Your task to perform on an android device: check out phone information Image 0: 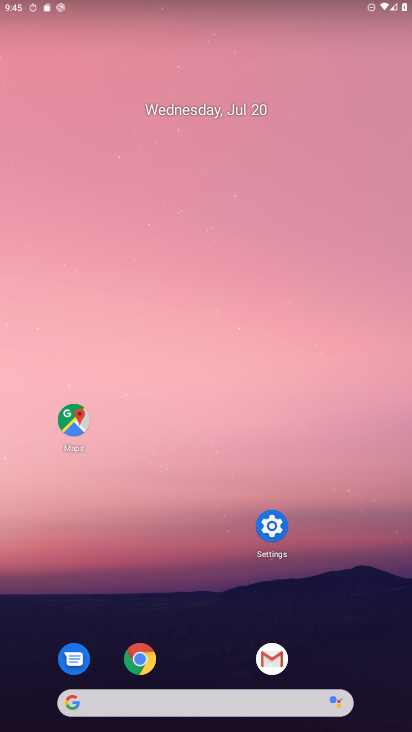
Step 0: click (289, 527)
Your task to perform on an android device: check out phone information Image 1: 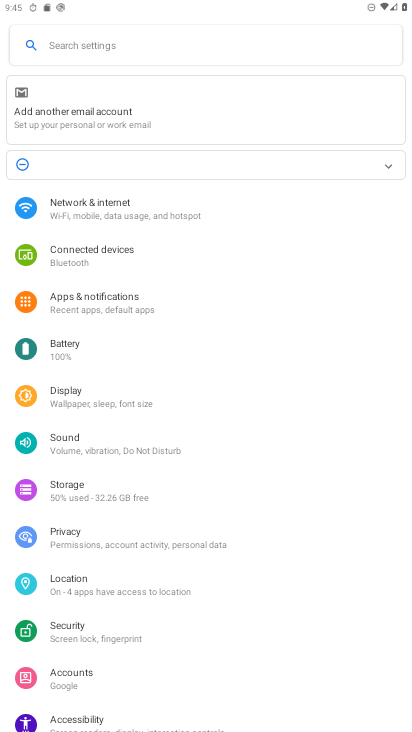
Step 1: click (90, 48)
Your task to perform on an android device: check out phone information Image 2: 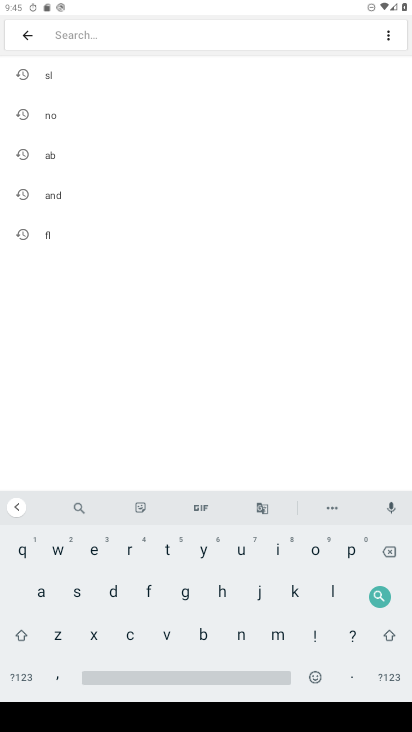
Step 2: click (67, 162)
Your task to perform on an android device: check out phone information Image 3: 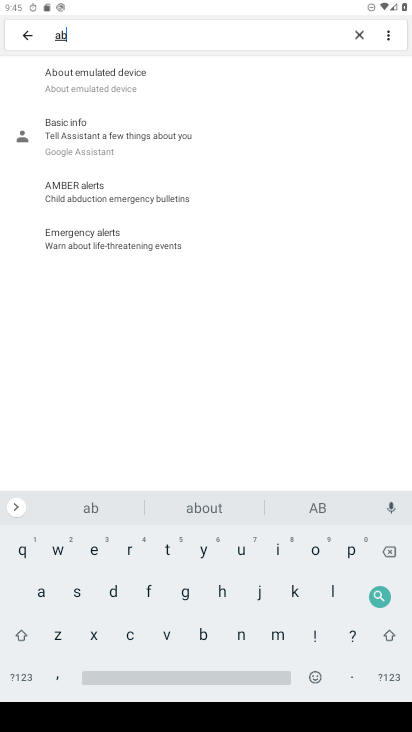
Step 3: click (124, 75)
Your task to perform on an android device: check out phone information Image 4: 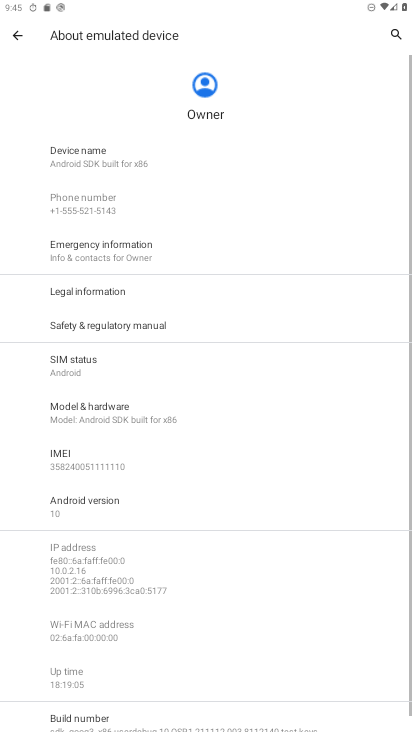
Step 4: task complete